Your task to perform on an android device: set default search engine in the chrome app Image 0: 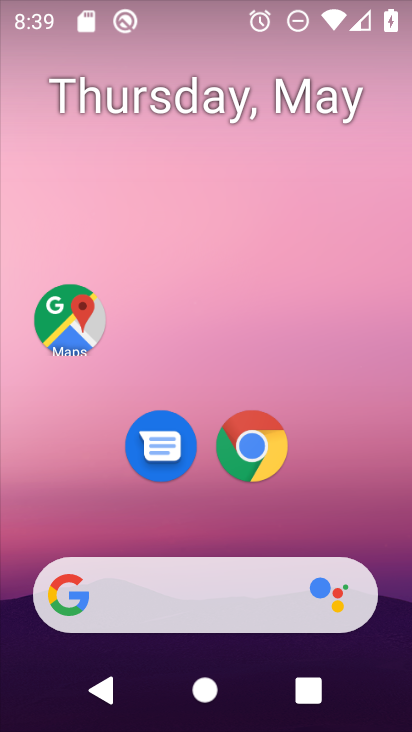
Step 0: drag from (373, 504) to (331, 153)
Your task to perform on an android device: set default search engine in the chrome app Image 1: 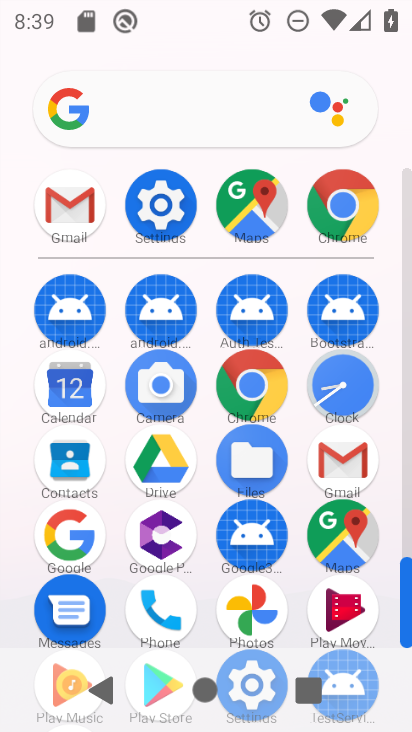
Step 1: click (248, 390)
Your task to perform on an android device: set default search engine in the chrome app Image 2: 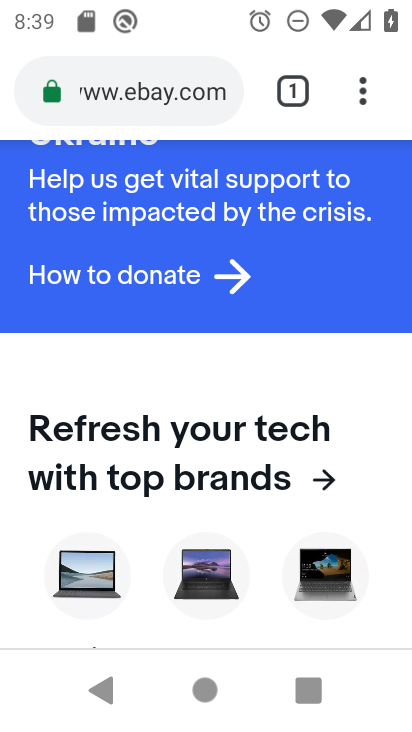
Step 2: drag from (364, 88) to (142, 484)
Your task to perform on an android device: set default search engine in the chrome app Image 3: 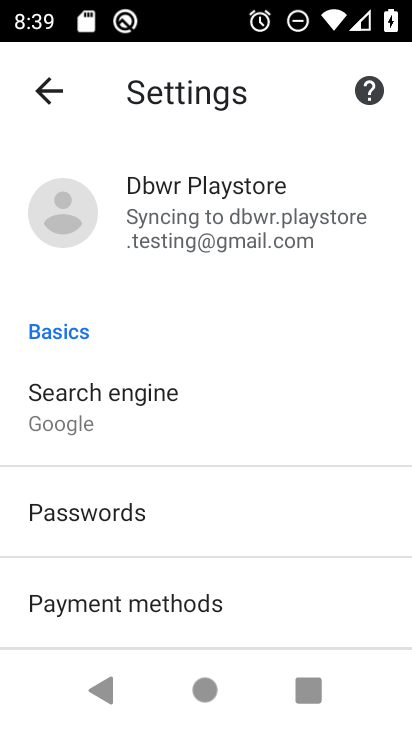
Step 3: click (91, 418)
Your task to perform on an android device: set default search engine in the chrome app Image 4: 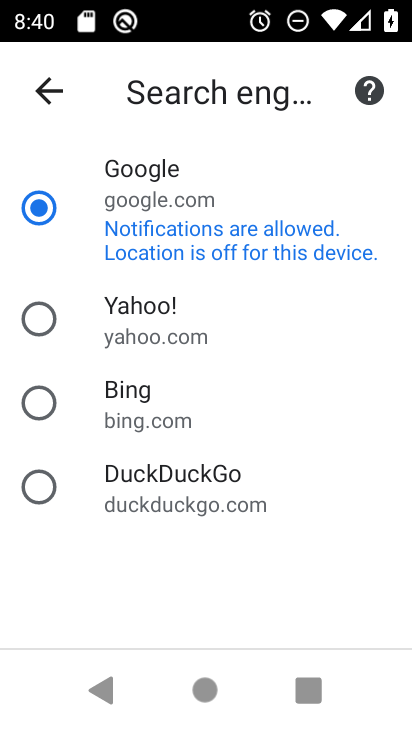
Step 4: click (35, 324)
Your task to perform on an android device: set default search engine in the chrome app Image 5: 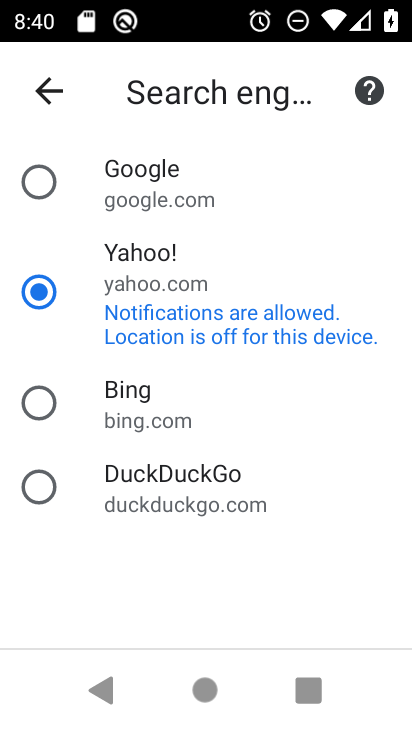
Step 5: task complete